Your task to perform on an android device: check battery use Image 0: 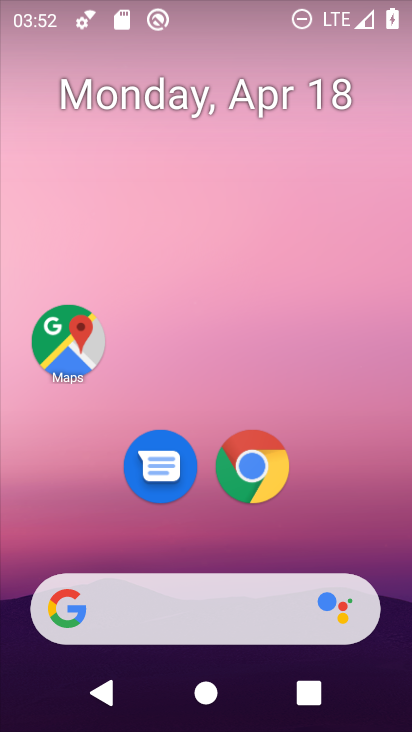
Step 0: drag from (335, 542) to (258, 107)
Your task to perform on an android device: check battery use Image 1: 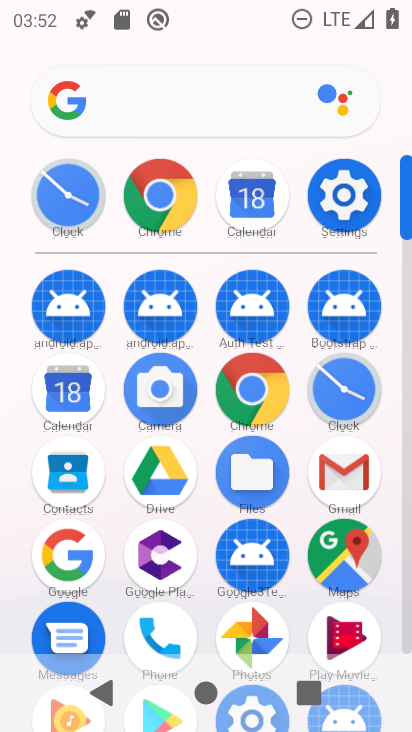
Step 1: click (330, 194)
Your task to perform on an android device: check battery use Image 2: 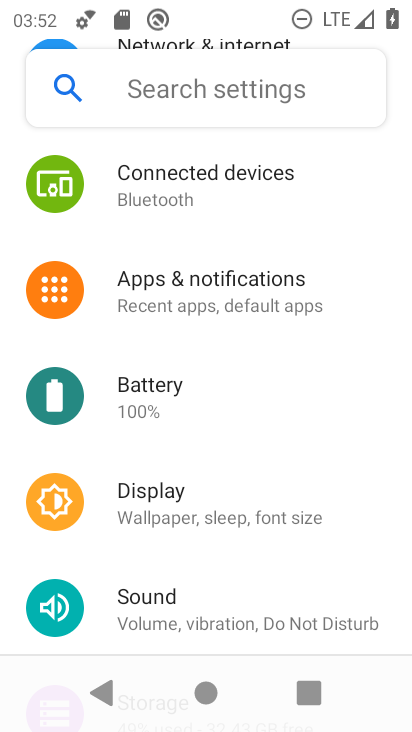
Step 2: click (301, 388)
Your task to perform on an android device: check battery use Image 3: 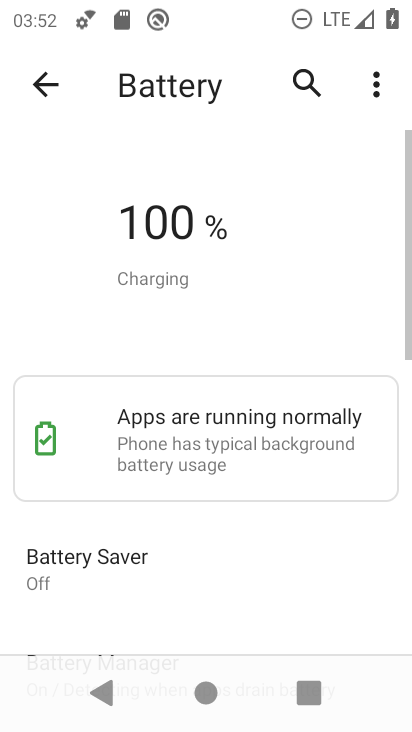
Step 3: task complete